Your task to perform on an android device: Turn off the flashlight Image 0: 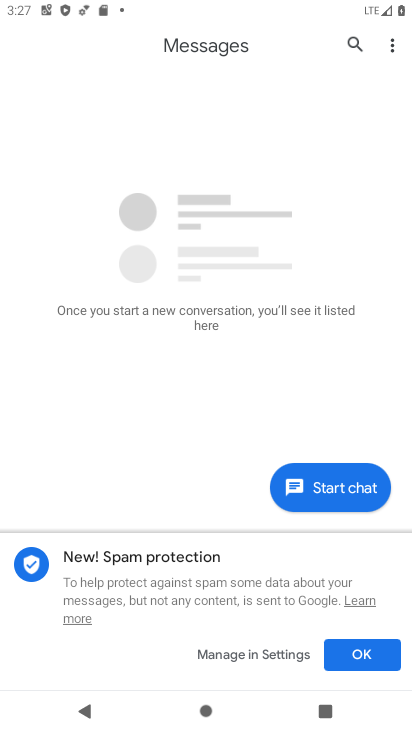
Step 0: press home button
Your task to perform on an android device: Turn off the flashlight Image 1: 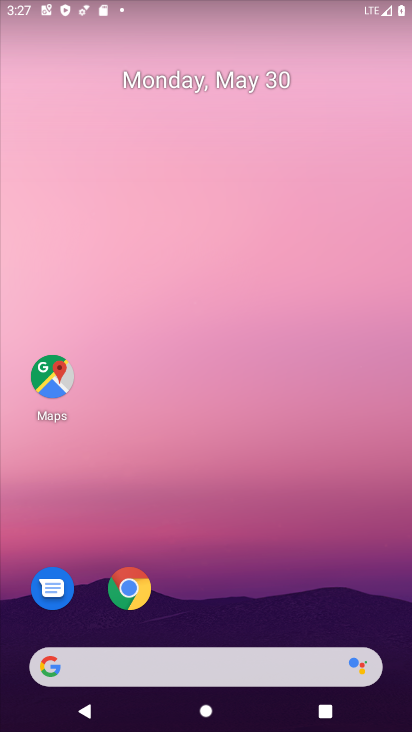
Step 1: drag from (220, 502) to (207, 21)
Your task to perform on an android device: Turn off the flashlight Image 2: 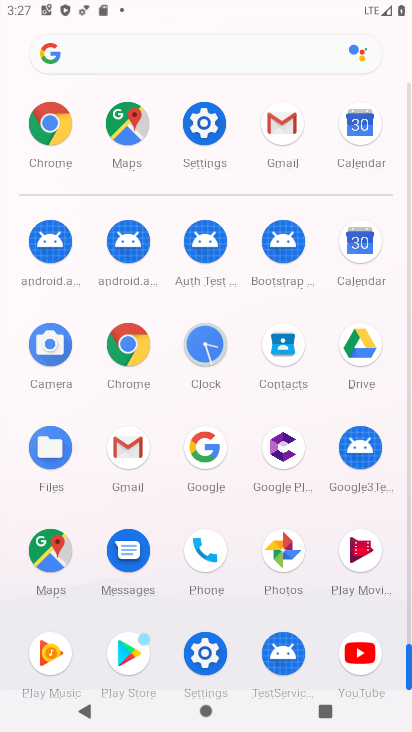
Step 2: click (199, 120)
Your task to perform on an android device: Turn off the flashlight Image 3: 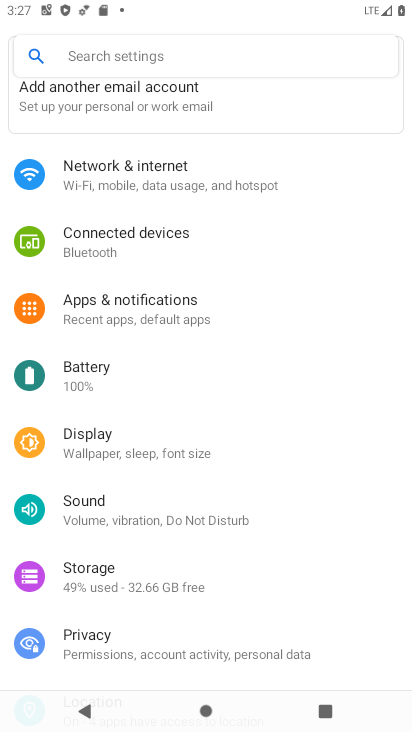
Step 3: drag from (224, 188) to (255, 507)
Your task to perform on an android device: Turn off the flashlight Image 4: 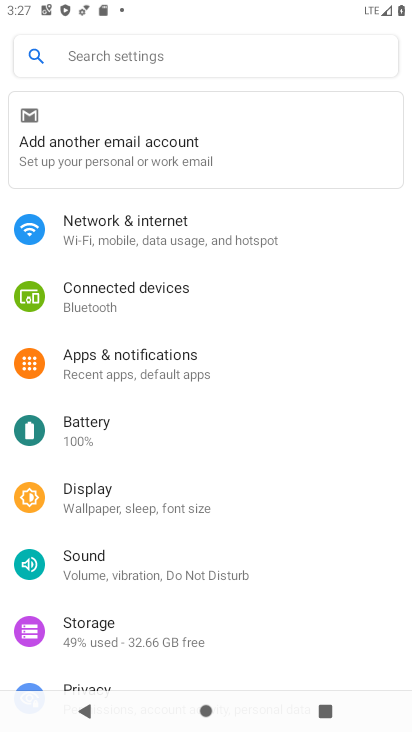
Step 4: drag from (250, 571) to (276, 168)
Your task to perform on an android device: Turn off the flashlight Image 5: 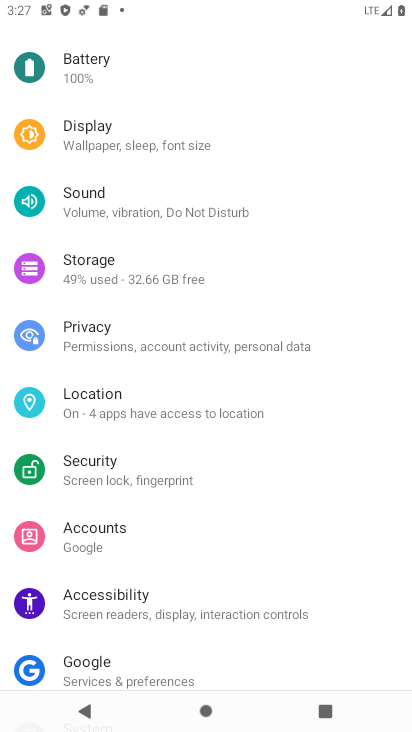
Step 5: drag from (261, 579) to (278, 204)
Your task to perform on an android device: Turn off the flashlight Image 6: 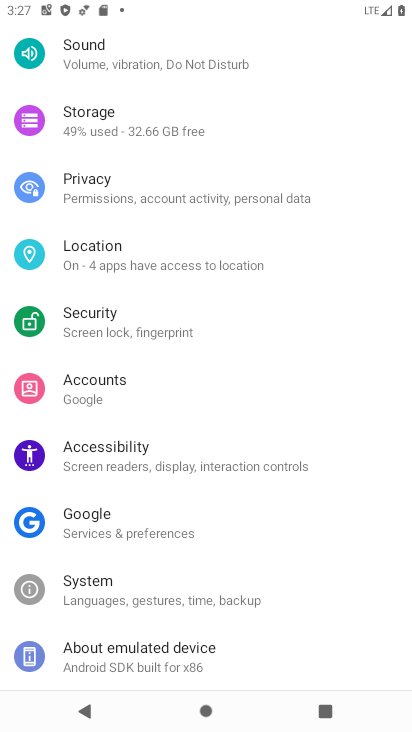
Step 6: drag from (245, 131) to (227, 626)
Your task to perform on an android device: Turn off the flashlight Image 7: 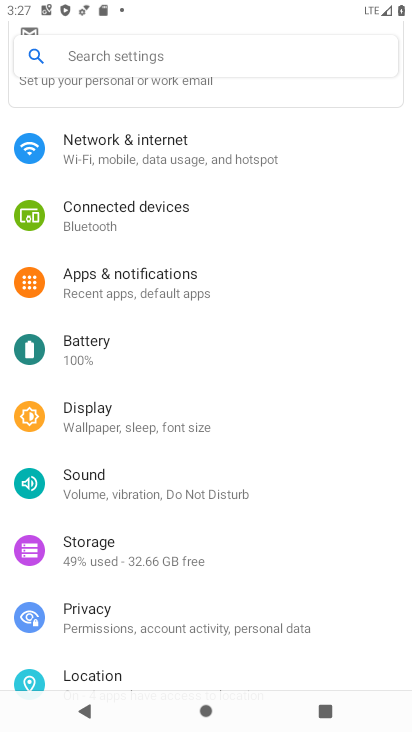
Step 7: click (195, 147)
Your task to perform on an android device: Turn off the flashlight Image 8: 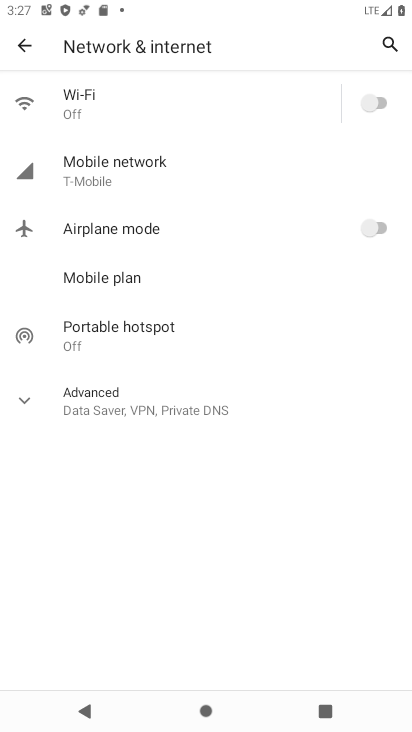
Step 8: click (17, 396)
Your task to perform on an android device: Turn off the flashlight Image 9: 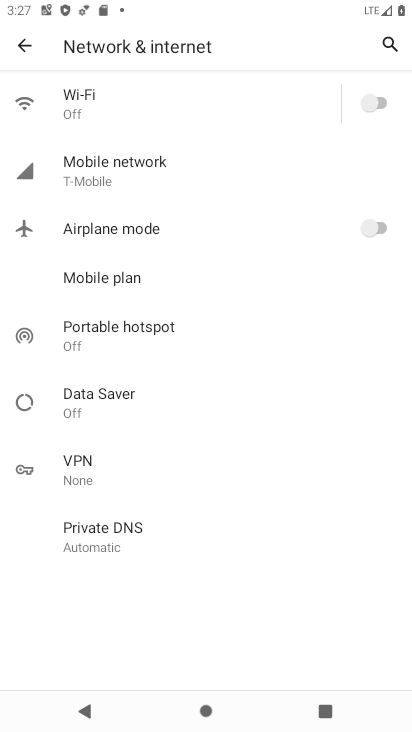
Step 9: task complete